Your task to perform on an android device: Open Google Maps Image 0: 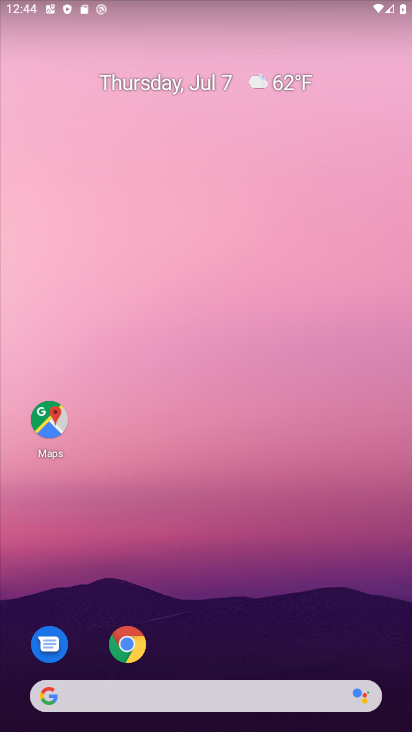
Step 0: click (35, 428)
Your task to perform on an android device: Open Google Maps Image 1: 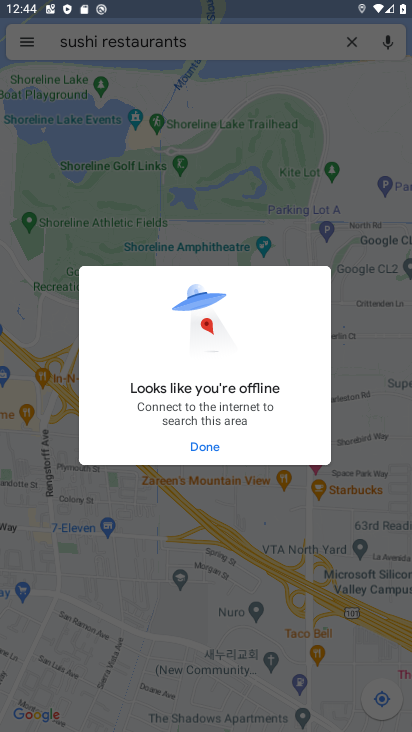
Step 1: click (206, 445)
Your task to perform on an android device: Open Google Maps Image 2: 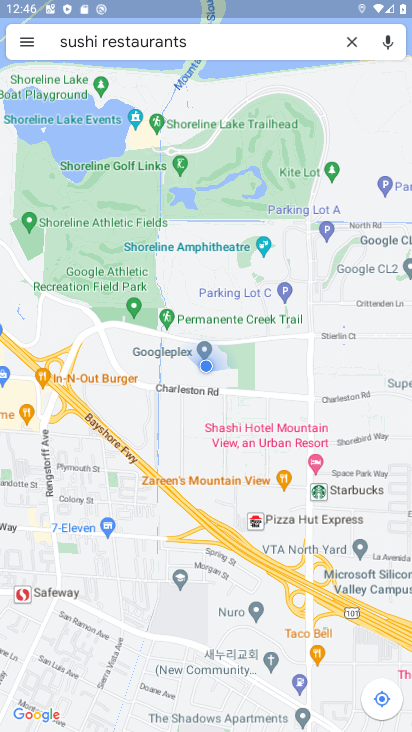
Step 2: task complete